Your task to perform on an android device: check the backup settings in the google photos Image 0: 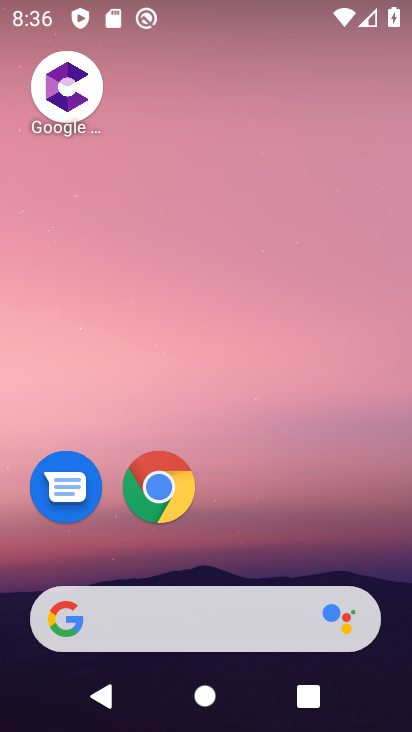
Step 0: drag from (270, 521) to (325, 0)
Your task to perform on an android device: check the backup settings in the google photos Image 1: 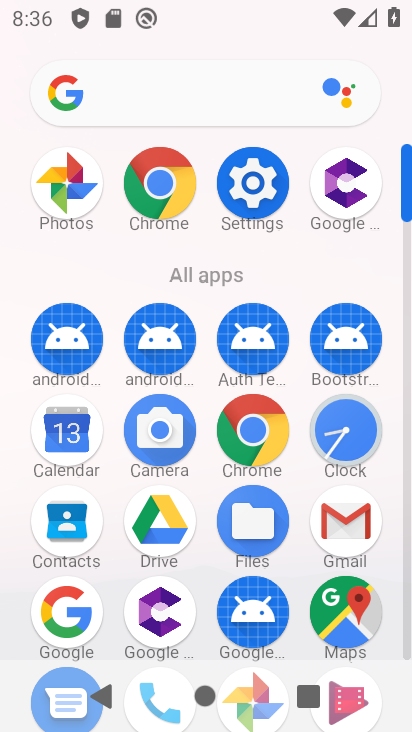
Step 1: drag from (236, 622) to (276, 198)
Your task to perform on an android device: check the backup settings in the google photos Image 2: 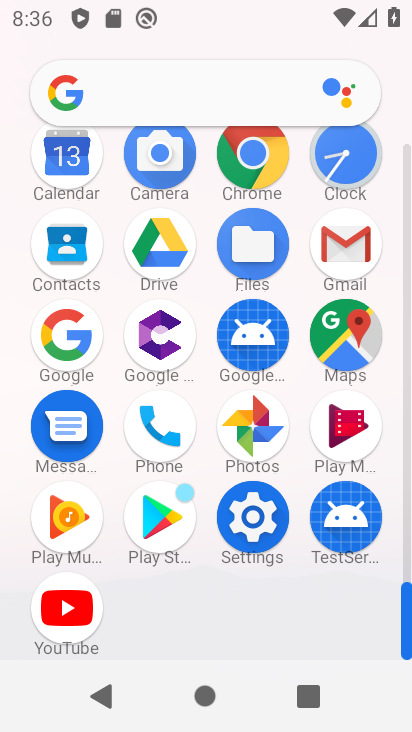
Step 2: click (254, 444)
Your task to perform on an android device: check the backup settings in the google photos Image 3: 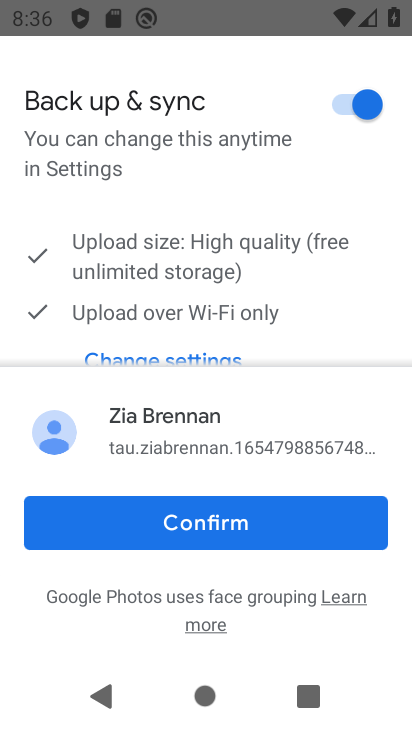
Step 3: click (183, 523)
Your task to perform on an android device: check the backup settings in the google photos Image 4: 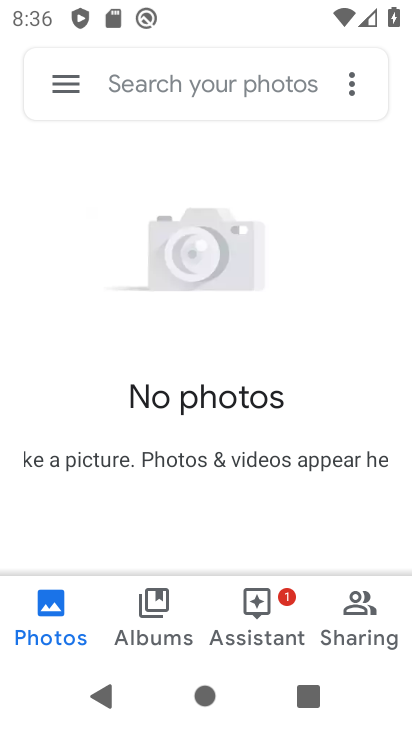
Step 4: click (57, 85)
Your task to perform on an android device: check the backup settings in the google photos Image 5: 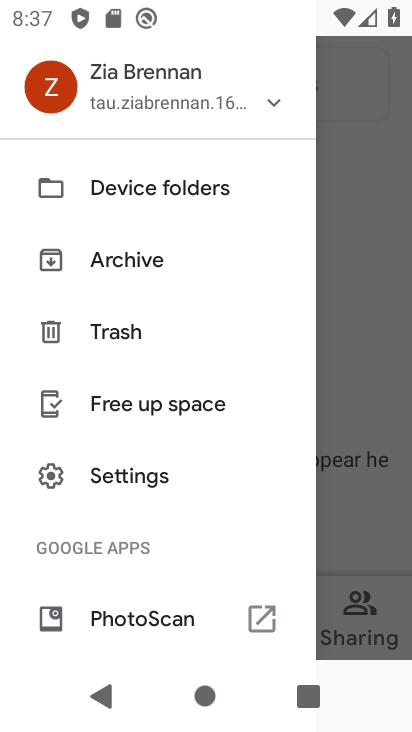
Step 5: click (122, 482)
Your task to perform on an android device: check the backup settings in the google photos Image 6: 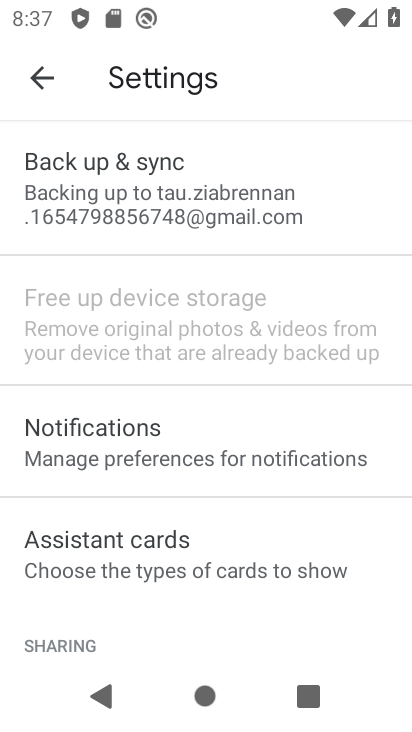
Step 6: click (126, 176)
Your task to perform on an android device: check the backup settings in the google photos Image 7: 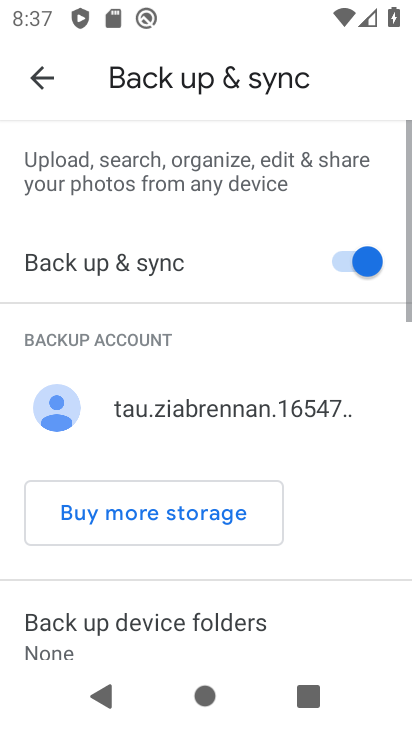
Step 7: task complete